Your task to perform on an android device: What's on my calendar today? Image 0: 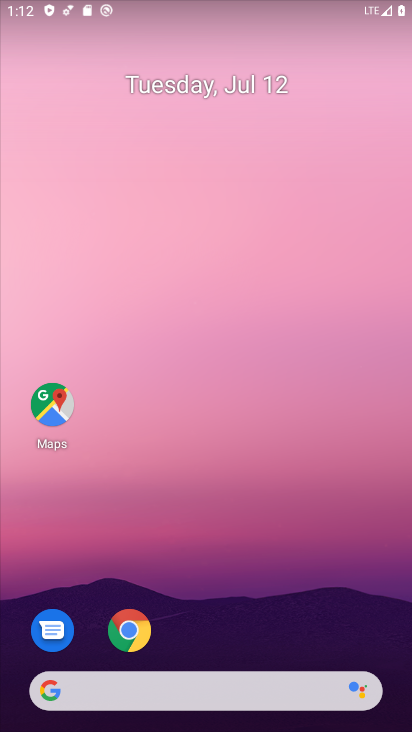
Step 0: drag from (374, 645) to (337, 142)
Your task to perform on an android device: What's on my calendar today? Image 1: 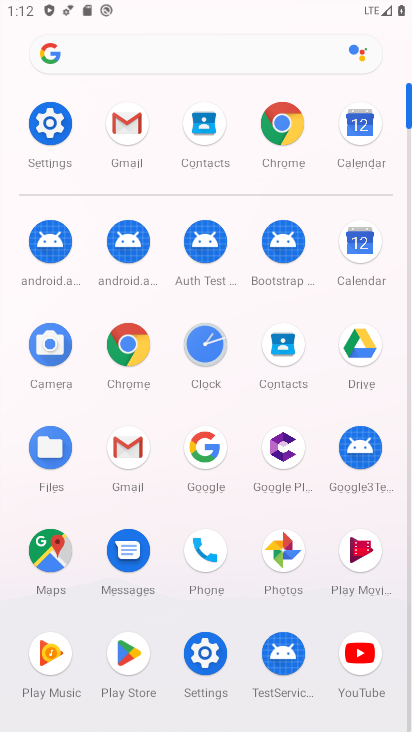
Step 1: click (360, 235)
Your task to perform on an android device: What's on my calendar today? Image 2: 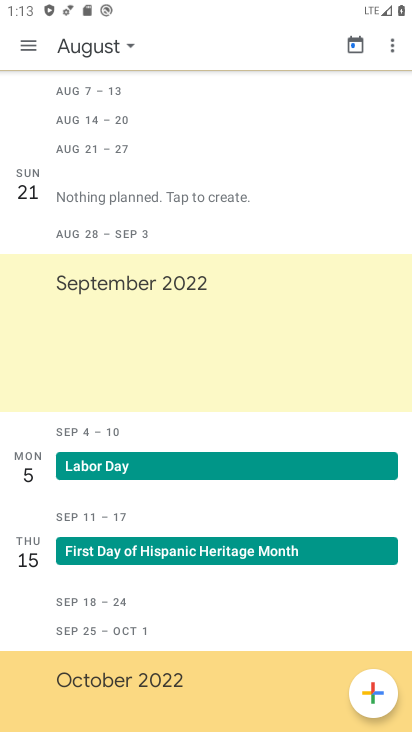
Step 2: click (25, 44)
Your task to perform on an android device: What's on my calendar today? Image 3: 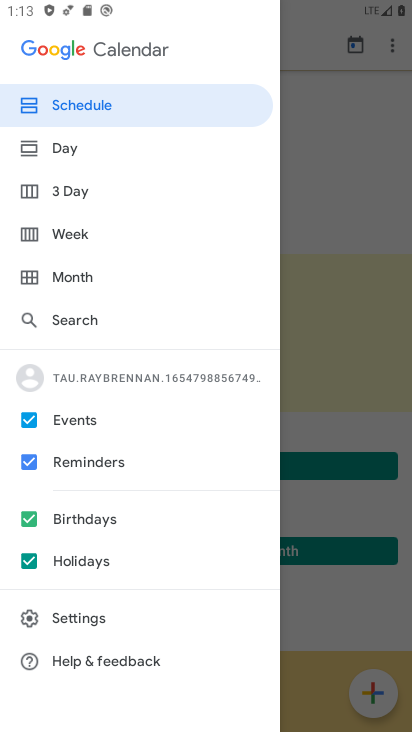
Step 3: click (58, 150)
Your task to perform on an android device: What's on my calendar today? Image 4: 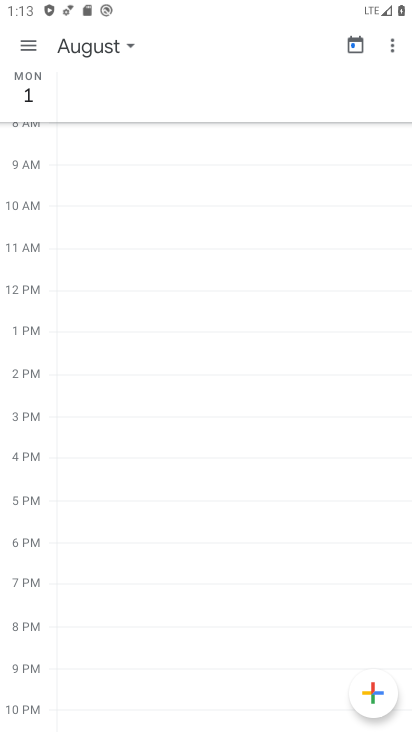
Step 4: click (128, 50)
Your task to perform on an android device: What's on my calendar today? Image 5: 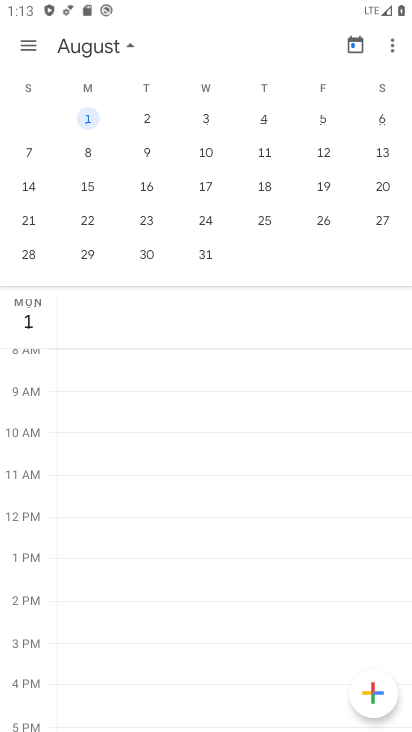
Step 5: drag from (28, 184) to (399, 180)
Your task to perform on an android device: What's on my calendar today? Image 6: 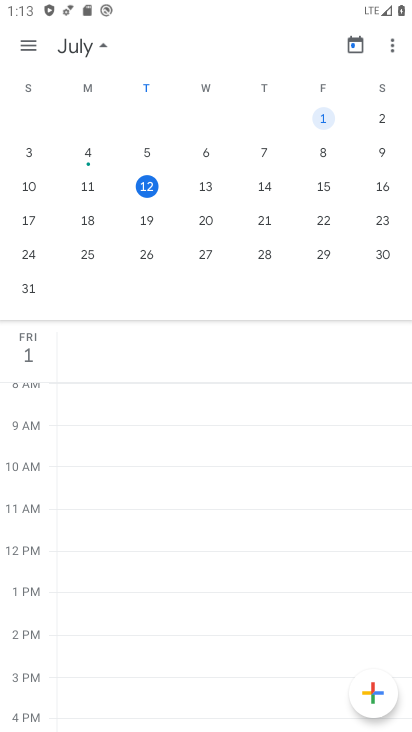
Step 6: click (146, 187)
Your task to perform on an android device: What's on my calendar today? Image 7: 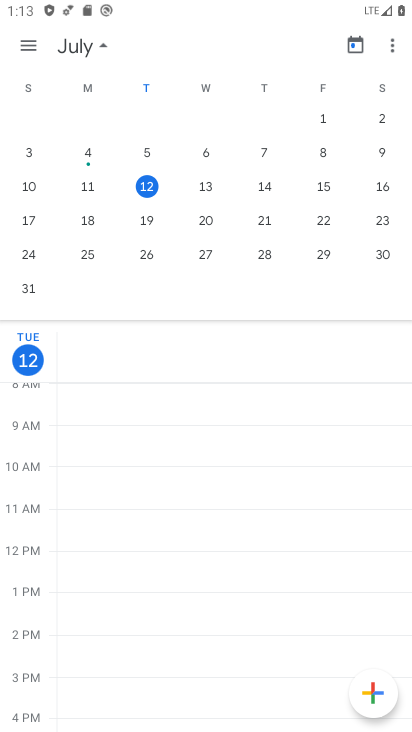
Step 7: task complete